Your task to perform on an android device: open sync settings in chrome Image 0: 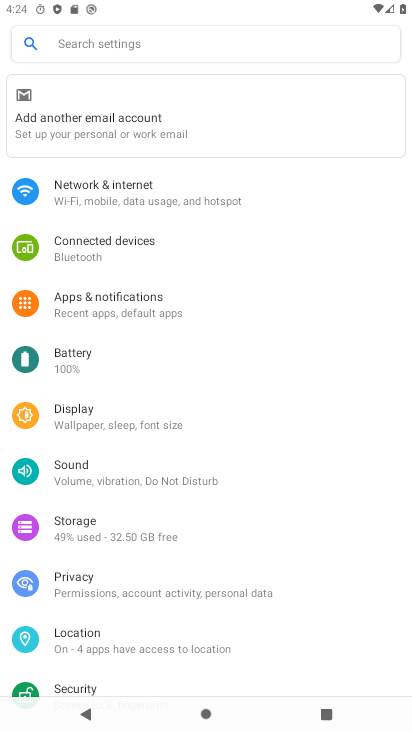
Step 0: press home button
Your task to perform on an android device: open sync settings in chrome Image 1: 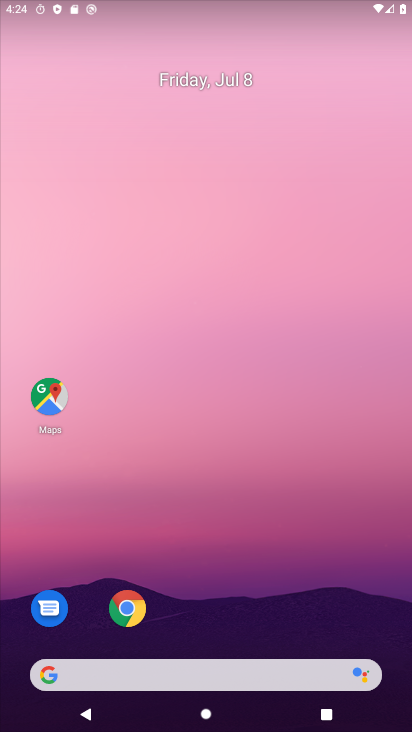
Step 1: drag from (279, 591) to (228, 28)
Your task to perform on an android device: open sync settings in chrome Image 2: 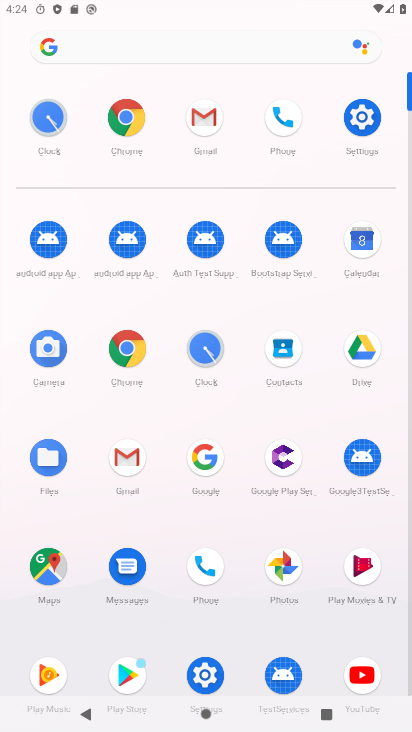
Step 2: click (116, 118)
Your task to perform on an android device: open sync settings in chrome Image 3: 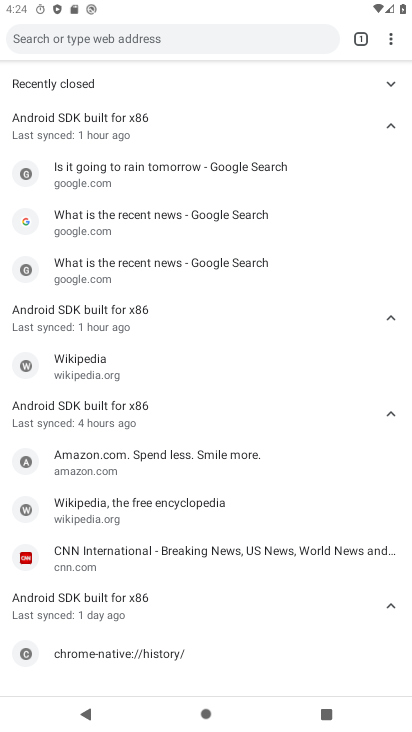
Step 3: click (390, 40)
Your task to perform on an android device: open sync settings in chrome Image 4: 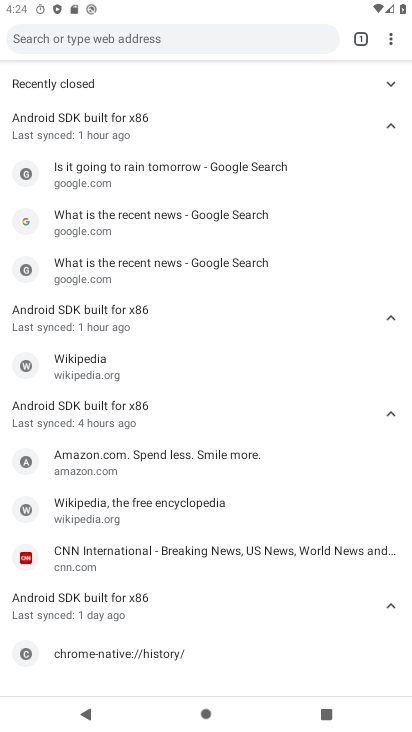
Step 4: drag from (390, 40) to (250, 324)
Your task to perform on an android device: open sync settings in chrome Image 5: 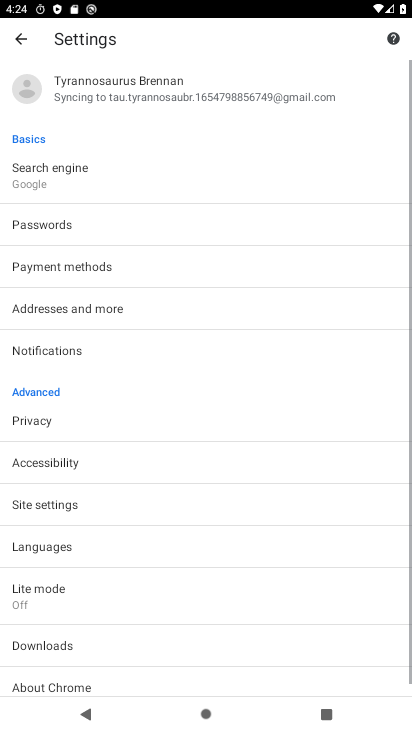
Step 5: click (138, 89)
Your task to perform on an android device: open sync settings in chrome Image 6: 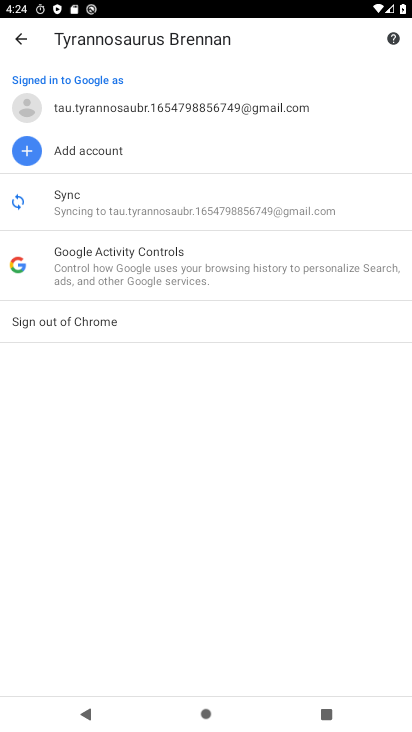
Step 6: click (88, 212)
Your task to perform on an android device: open sync settings in chrome Image 7: 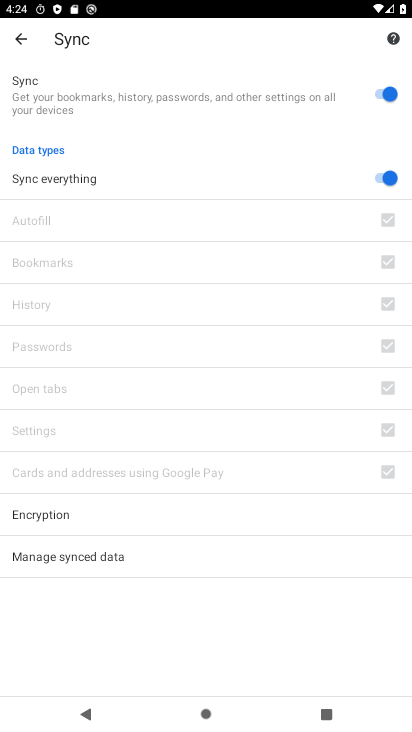
Step 7: task complete